Your task to perform on an android device: turn vacation reply on in the gmail app Image 0: 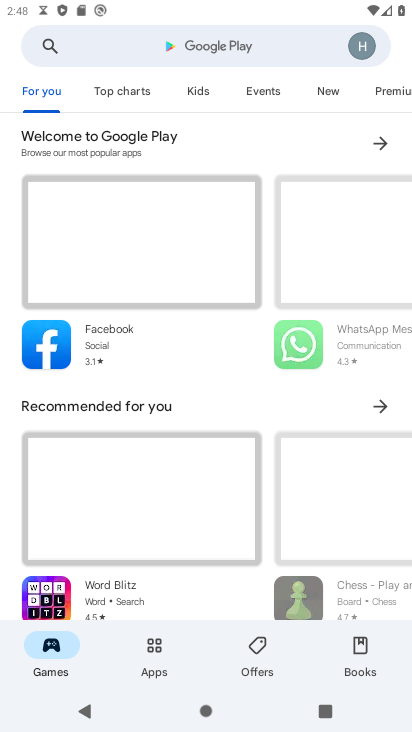
Step 0: press home button
Your task to perform on an android device: turn vacation reply on in the gmail app Image 1: 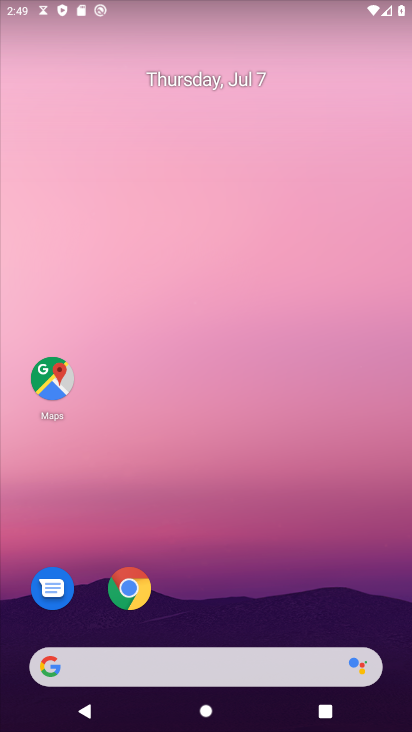
Step 1: drag from (243, 588) to (179, 83)
Your task to perform on an android device: turn vacation reply on in the gmail app Image 2: 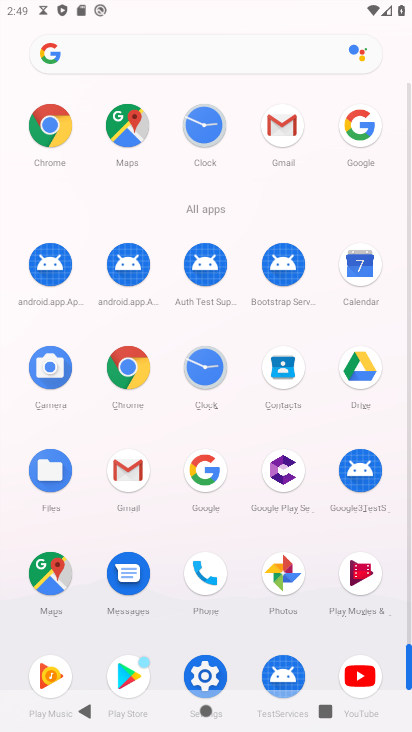
Step 2: click (279, 121)
Your task to perform on an android device: turn vacation reply on in the gmail app Image 3: 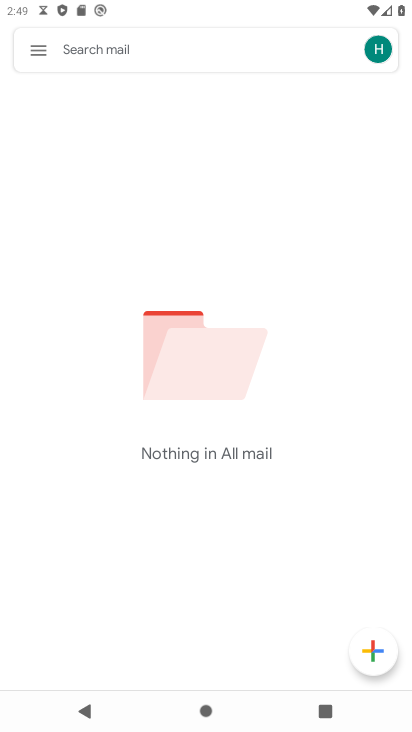
Step 3: click (35, 51)
Your task to perform on an android device: turn vacation reply on in the gmail app Image 4: 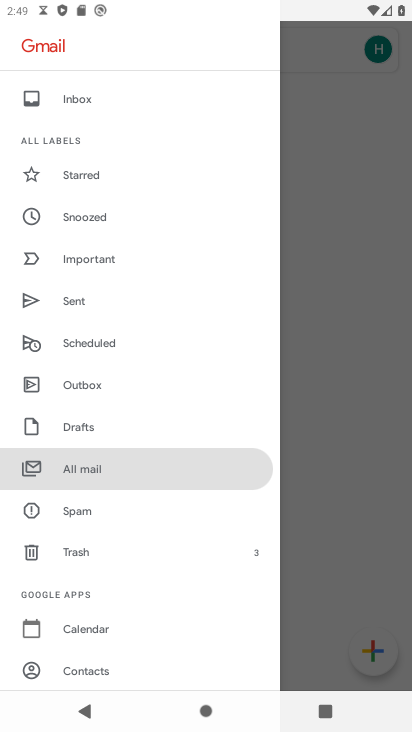
Step 4: drag from (113, 584) to (132, 388)
Your task to perform on an android device: turn vacation reply on in the gmail app Image 5: 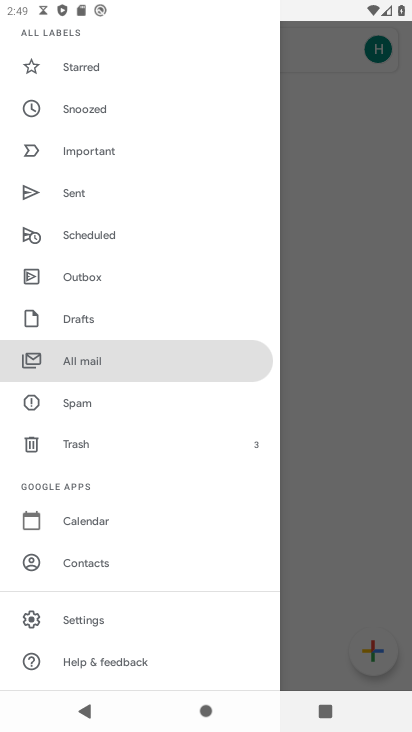
Step 5: click (81, 618)
Your task to perform on an android device: turn vacation reply on in the gmail app Image 6: 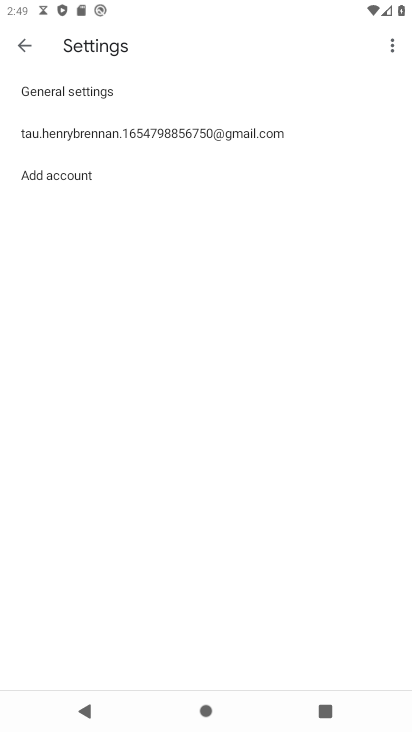
Step 6: click (136, 130)
Your task to perform on an android device: turn vacation reply on in the gmail app Image 7: 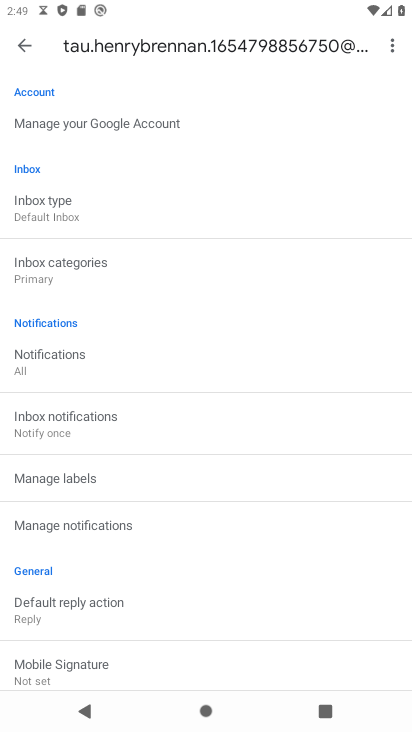
Step 7: drag from (111, 542) to (239, 167)
Your task to perform on an android device: turn vacation reply on in the gmail app Image 8: 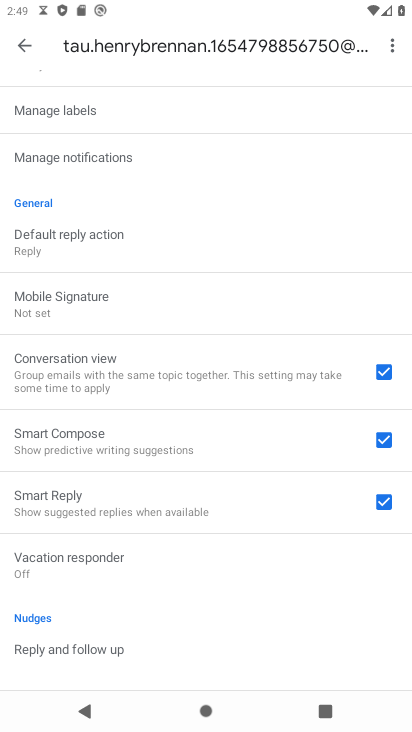
Step 8: click (113, 552)
Your task to perform on an android device: turn vacation reply on in the gmail app Image 9: 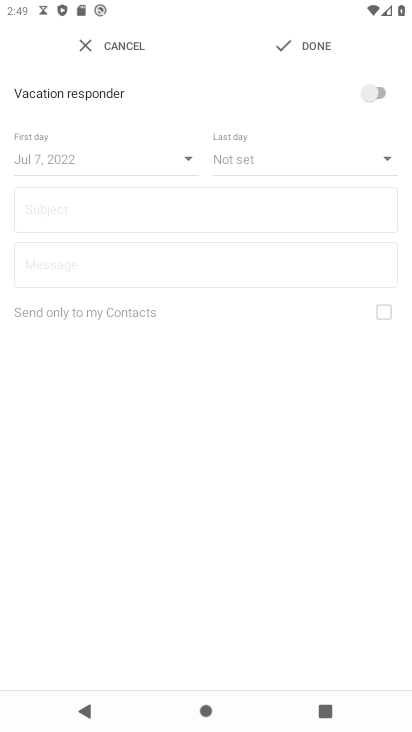
Step 9: click (366, 91)
Your task to perform on an android device: turn vacation reply on in the gmail app Image 10: 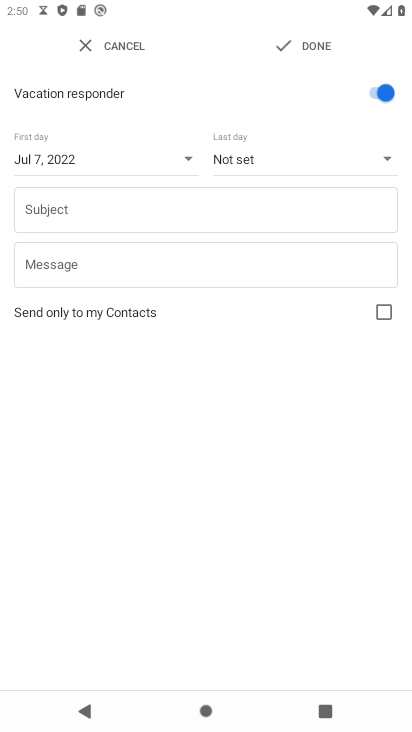
Step 10: task complete